Your task to perform on an android device: Go to Wikipedia Image 0: 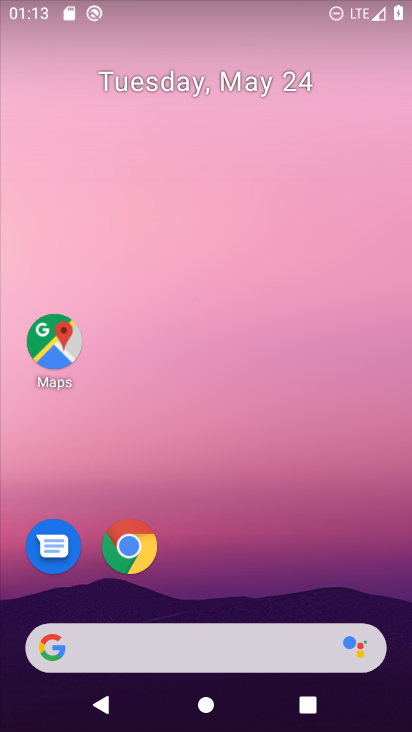
Step 0: drag from (211, 618) to (294, 72)
Your task to perform on an android device: Go to Wikipedia Image 1: 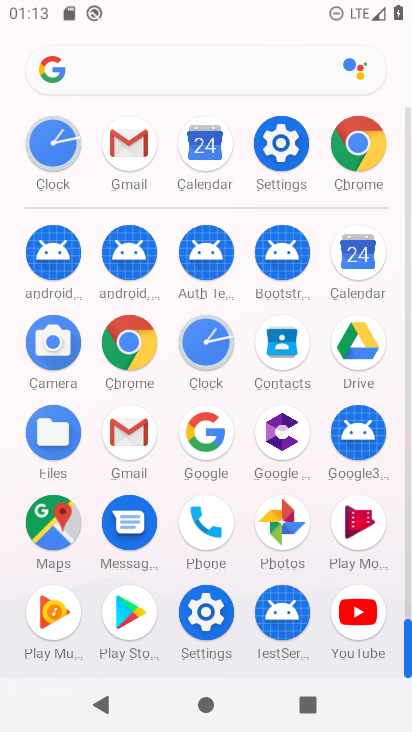
Step 1: click (145, 372)
Your task to perform on an android device: Go to Wikipedia Image 2: 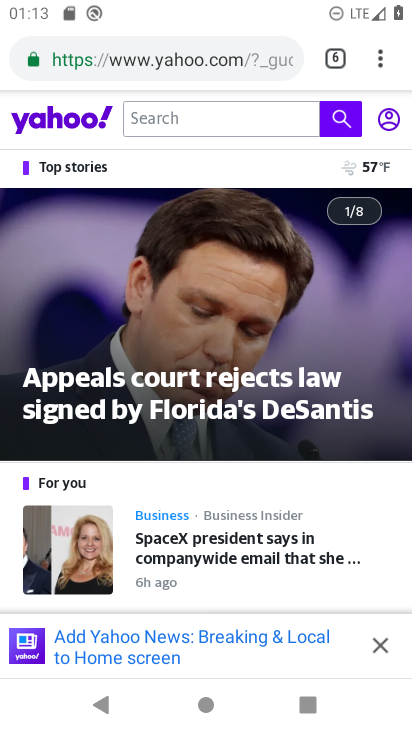
Step 2: drag from (384, 59) to (222, 107)
Your task to perform on an android device: Go to Wikipedia Image 3: 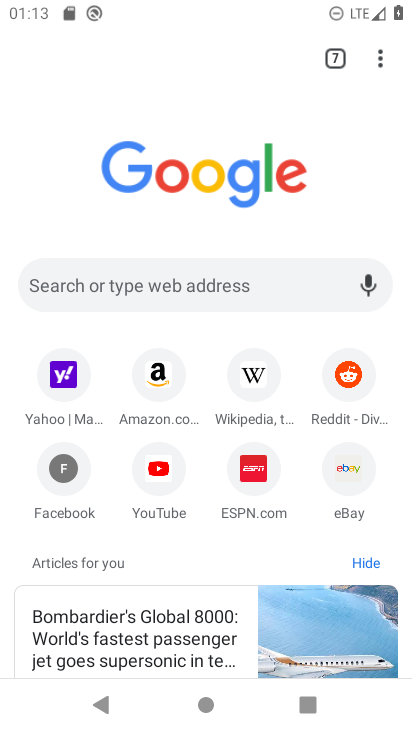
Step 3: click (252, 374)
Your task to perform on an android device: Go to Wikipedia Image 4: 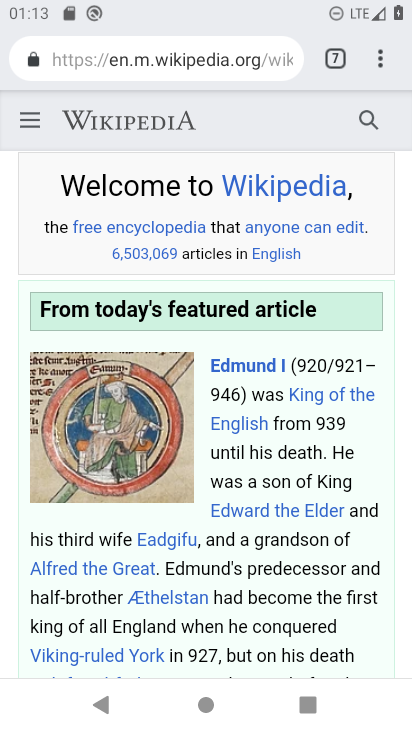
Step 4: task complete